Your task to perform on an android device: check google app version Image 0: 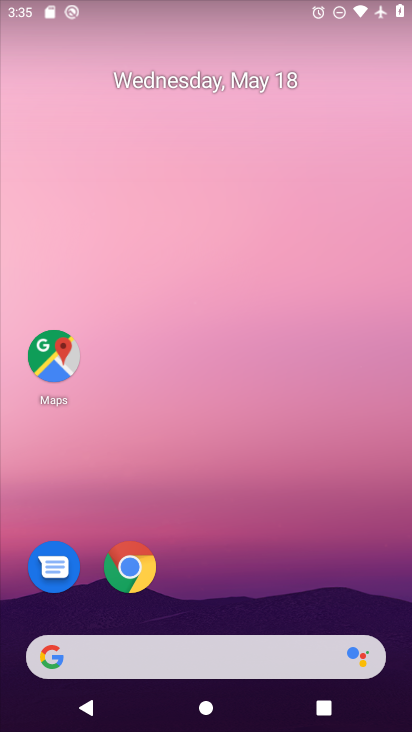
Step 0: drag from (272, 524) to (313, 202)
Your task to perform on an android device: check google app version Image 1: 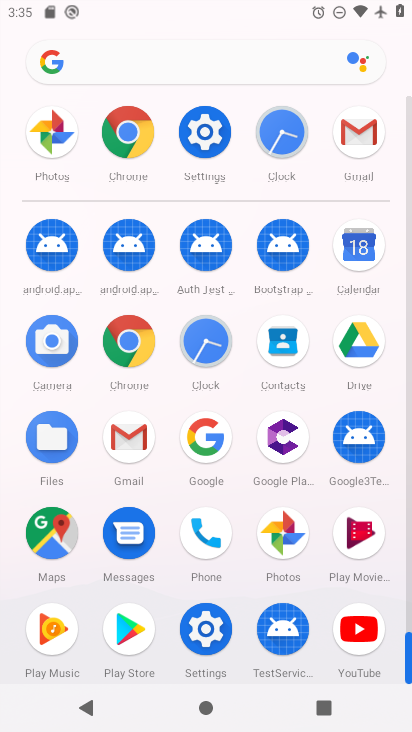
Step 1: click (200, 414)
Your task to perform on an android device: check google app version Image 2: 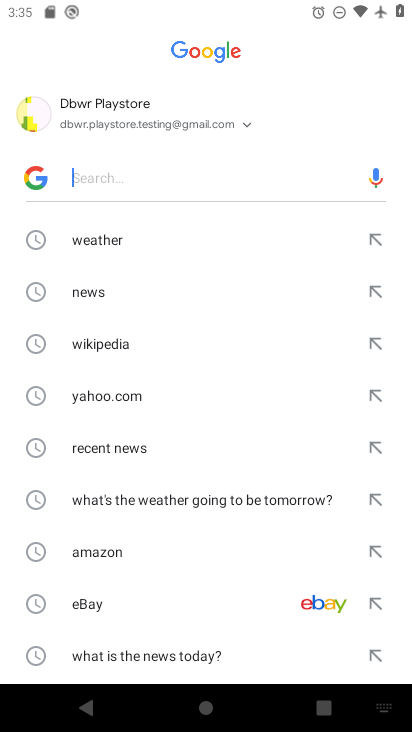
Step 2: click (44, 106)
Your task to perform on an android device: check google app version Image 3: 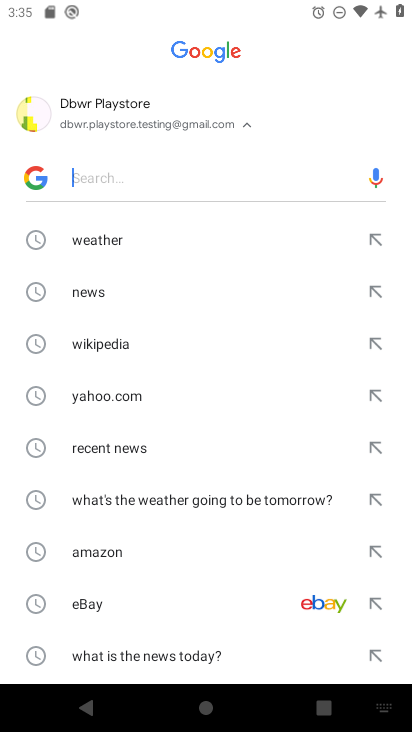
Step 3: click (45, 103)
Your task to perform on an android device: check google app version Image 4: 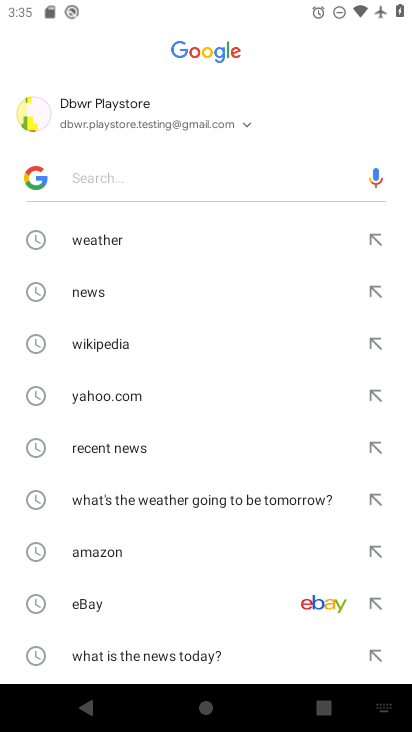
Step 4: click (18, 125)
Your task to perform on an android device: check google app version Image 5: 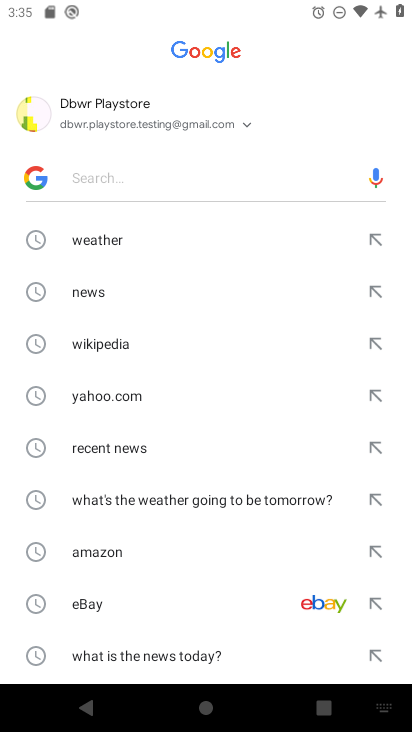
Step 5: click (26, 120)
Your task to perform on an android device: check google app version Image 6: 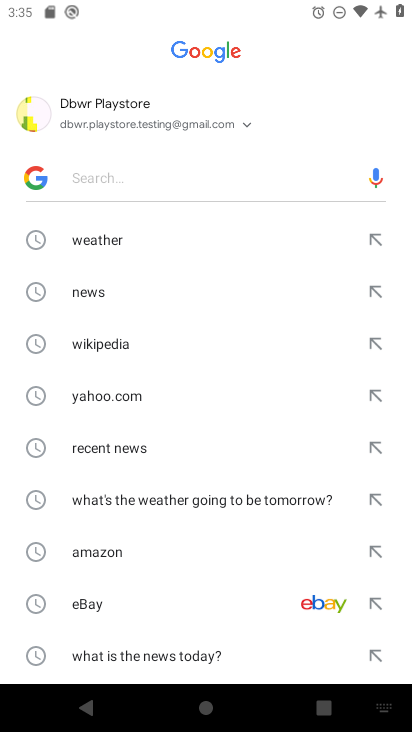
Step 6: click (129, 105)
Your task to perform on an android device: check google app version Image 7: 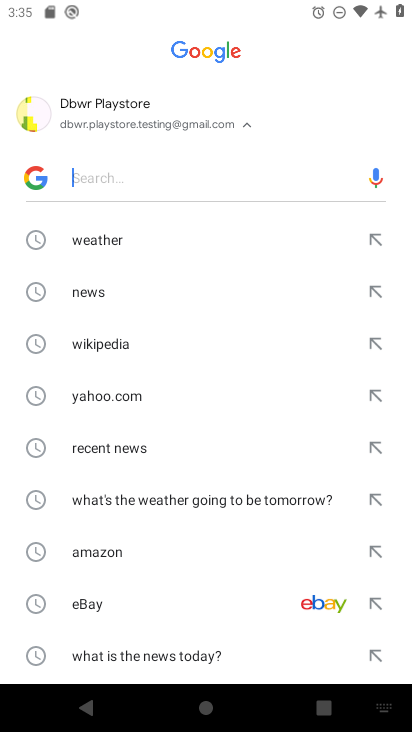
Step 7: click (209, 116)
Your task to perform on an android device: check google app version Image 8: 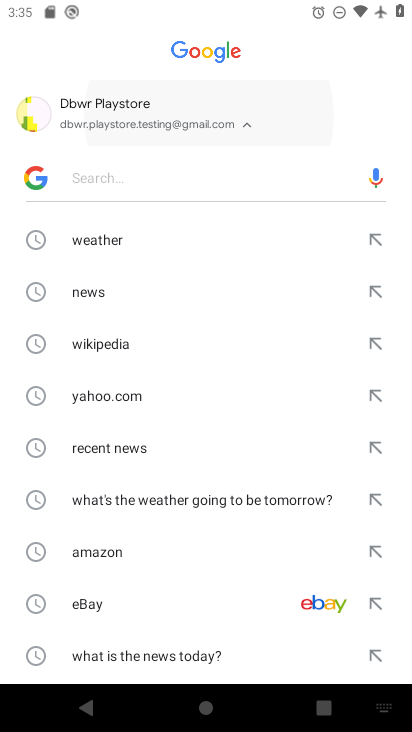
Step 8: click (263, 132)
Your task to perform on an android device: check google app version Image 9: 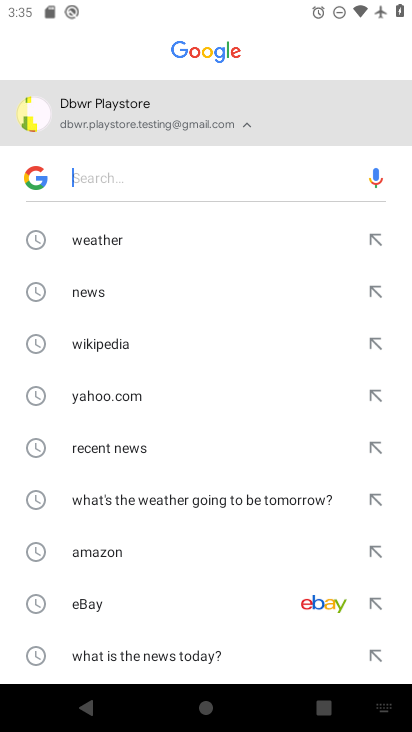
Step 9: click (250, 127)
Your task to perform on an android device: check google app version Image 10: 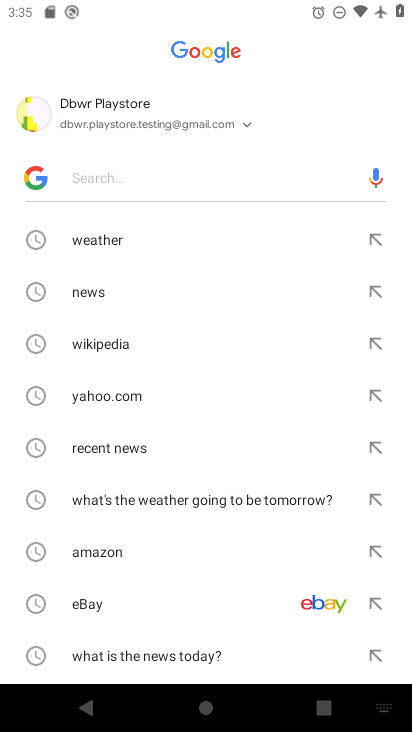
Step 10: click (40, 102)
Your task to perform on an android device: check google app version Image 11: 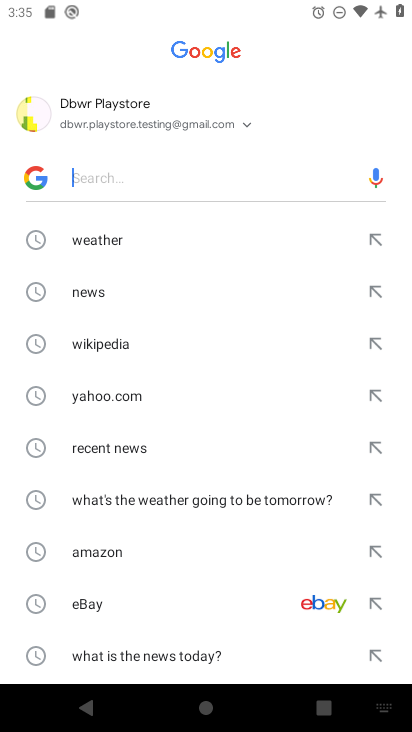
Step 11: click (26, 176)
Your task to perform on an android device: check google app version Image 12: 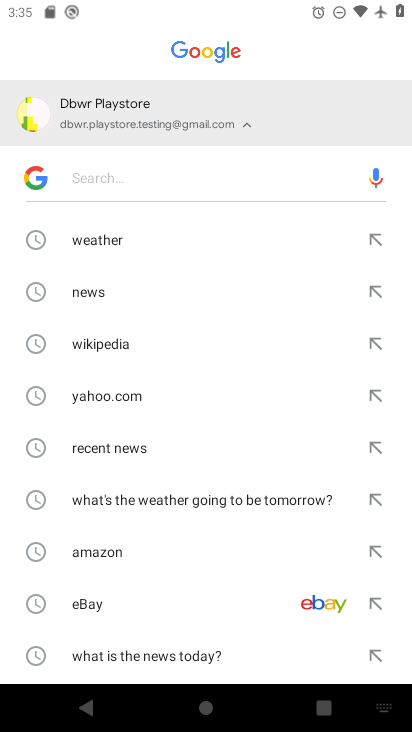
Step 12: click (24, 177)
Your task to perform on an android device: check google app version Image 13: 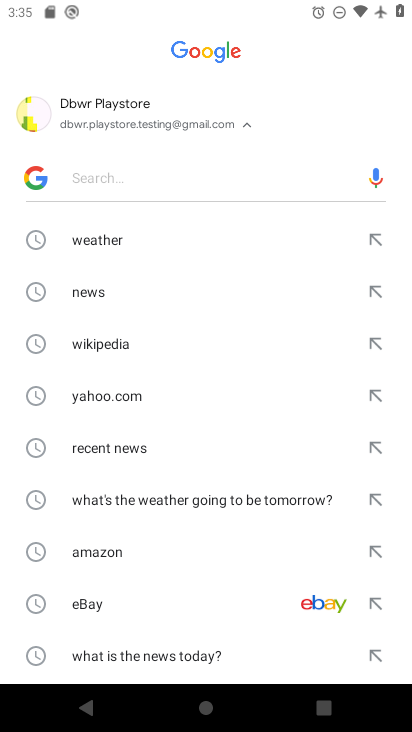
Step 13: click (24, 177)
Your task to perform on an android device: check google app version Image 14: 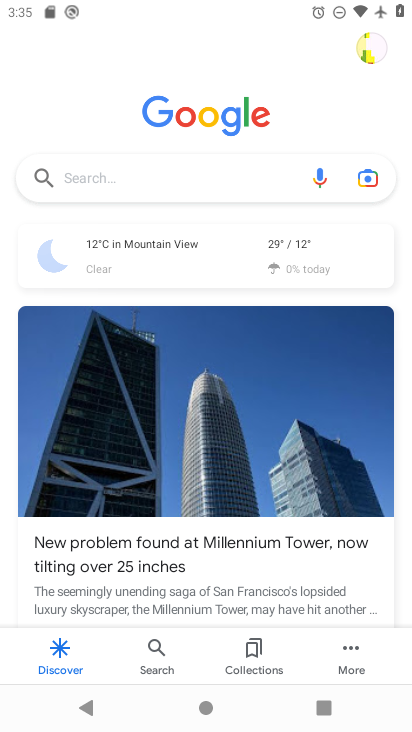
Step 14: click (342, 659)
Your task to perform on an android device: check google app version Image 15: 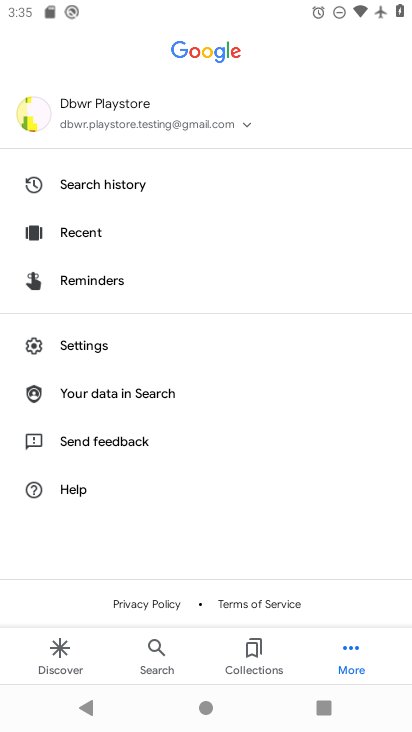
Step 15: click (88, 349)
Your task to perform on an android device: check google app version Image 16: 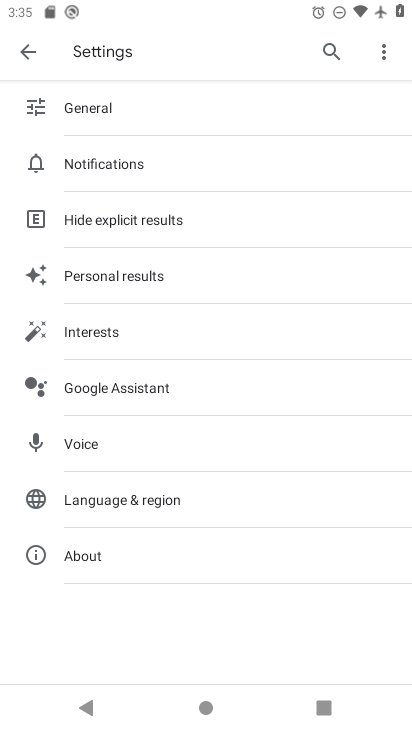
Step 16: click (111, 552)
Your task to perform on an android device: check google app version Image 17: 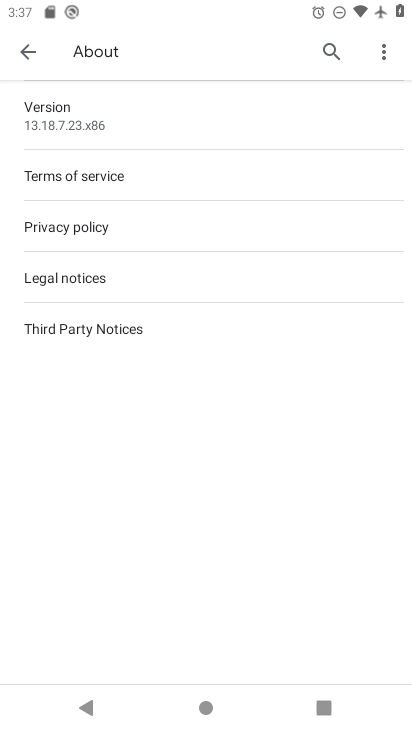
Step 17: task complete